Your task to perform on an android device: toggle wifi Image 0: 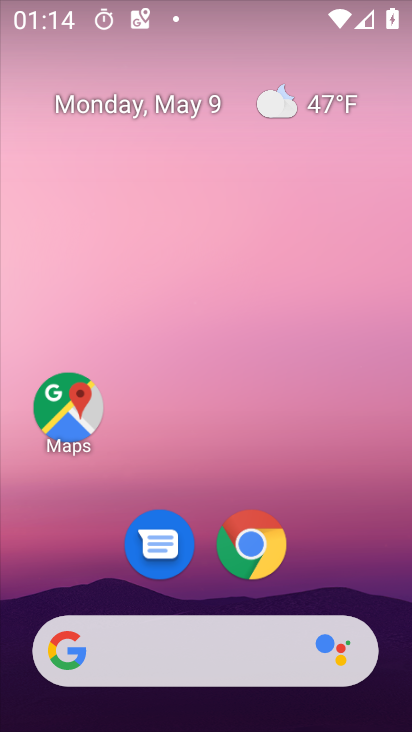
Step 0: drag from (240, 9) to (248, 602)
Your task to perform on an android device: toggle wifi Image 1: 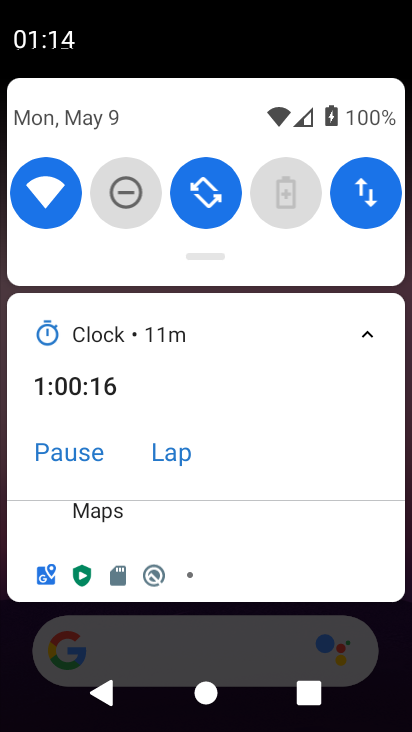
Step 1: drag from (297, 260) to (374, 631)
Your task to perform on an android device: toggle wifi Image 2: 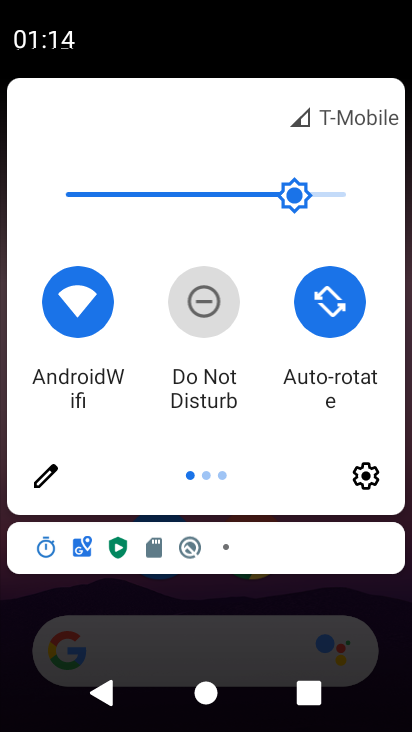
Step 2: drag from (350, 394) to (32, 414)
Your task to perform on an android device: toggle wifi Image 3: 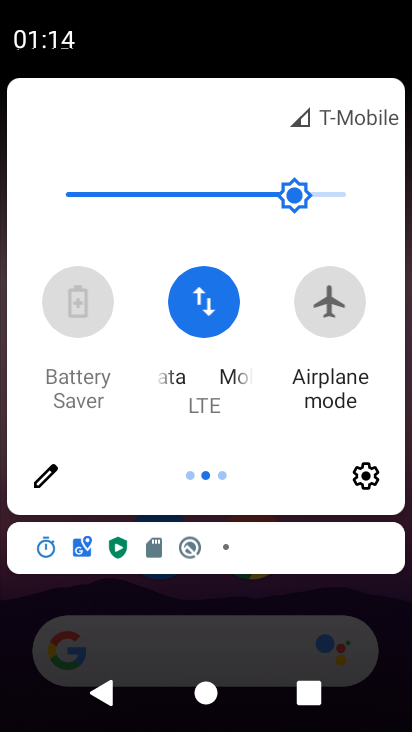
Step 3: drag from (266, 404) to (14, 432)
Your task to perform on an android device: toggle wifi Image 4: 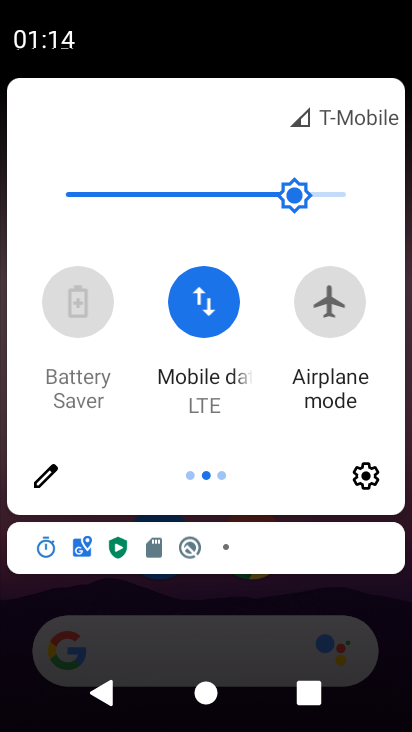
Step 4: drag from (348, 363) to (3, 396)
Your task to perform on an android device: toggle wifi Image 5: 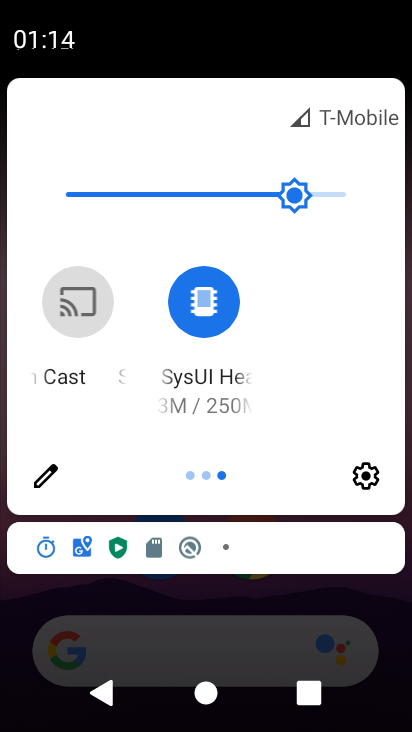
Step 5: drag from (108, 407) to (410, 393)
Your task to perform on an android device: toggle wifi Image 6: 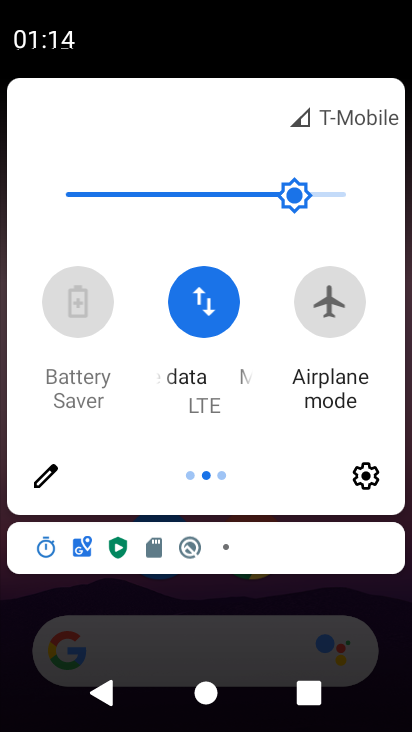
Step 6: drag from (95, 417) to (397, 405)
Your task to perform on an android device: toggle wifi Image 7: 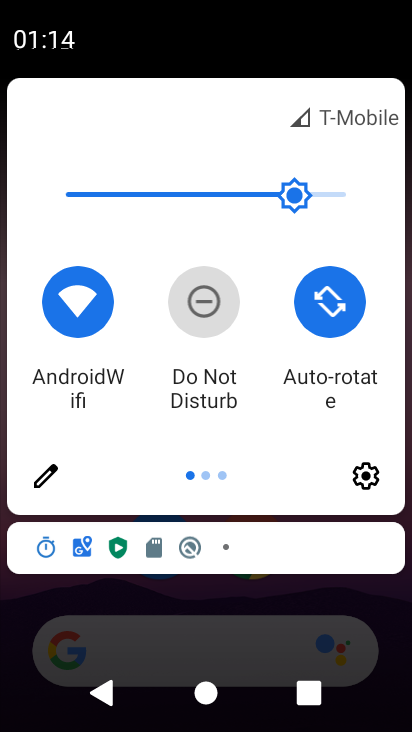
Step 7: click (86, 315)
Your task to perform on an android device: toggle wifi Image 8: 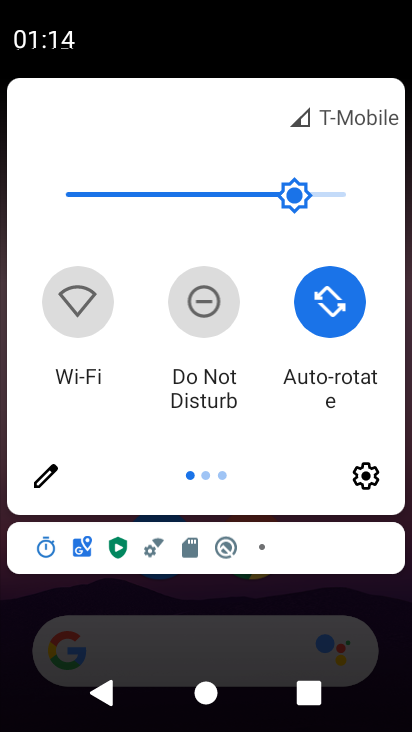
Step 8: task complete